Your task to perform on an android device: snooze an email in the gmail app Image 0: 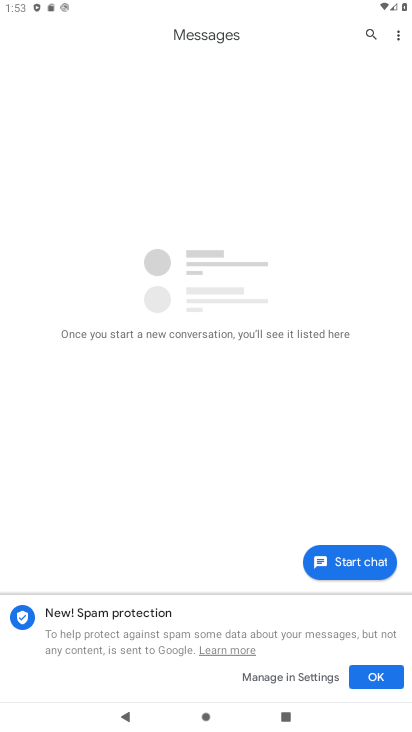
Step 0: press home button
Your task to perform on an android device: snooze an email in the gmail app Image 1: 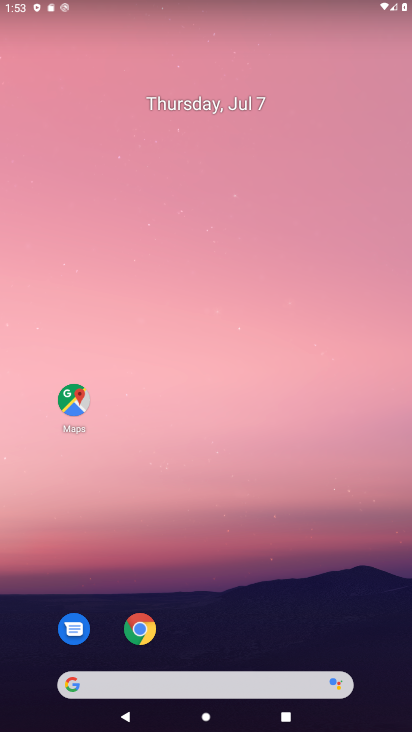
Step 1: drag from (218, 668) to (287, 172)
Your task to perform on an android device: snooze an email in the gmail app Image 2: 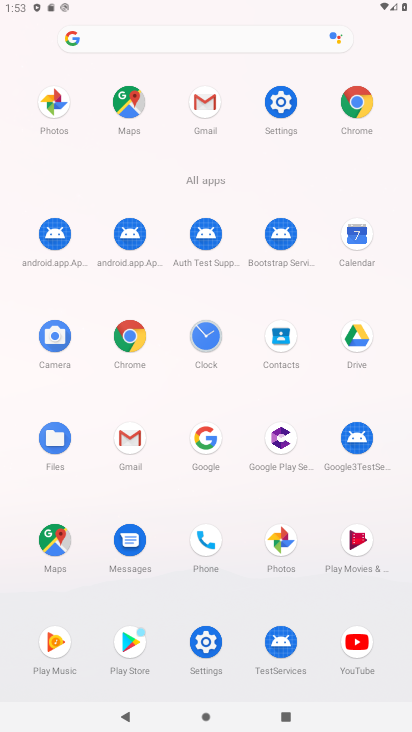
Step 2: click (128, 446)
Your task to perform on an android device: snooze an email in the gmail app Image 3: 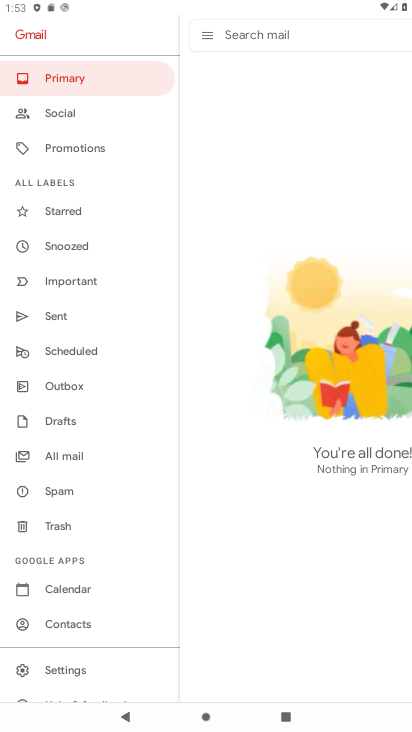
Step 3: task complete